Your task to perform on an android device: change notification settings in the gmail app Image 0: 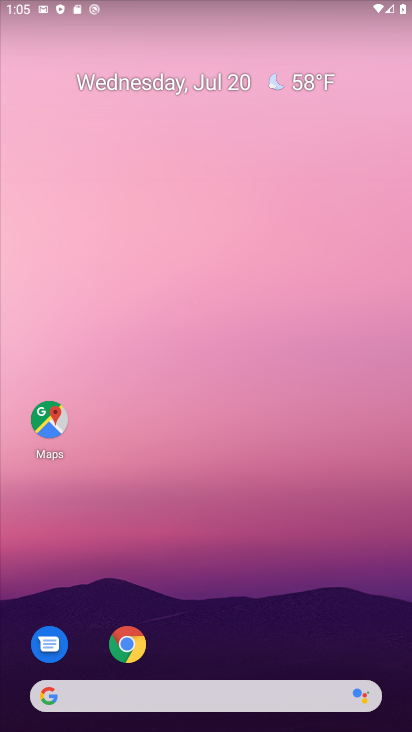
Step 0: drag from (190, 653) to (181, 182)
Your task to perform on an android device: change notification settings in the gmail app Image 1: 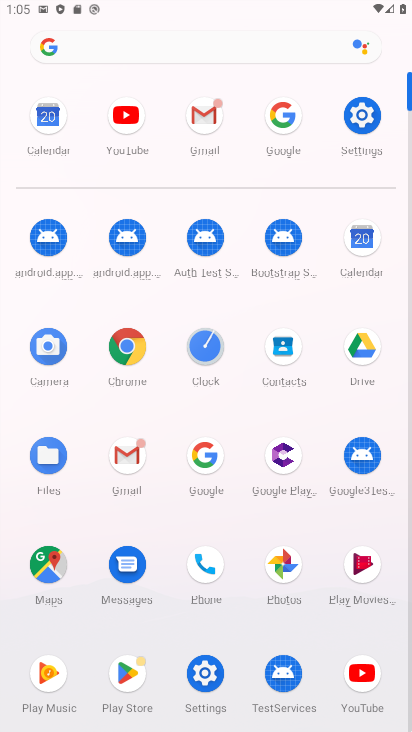
Step 1: click (201, 111)
Your task to perform on an android device: change notification settings in the gmail app Image 2: 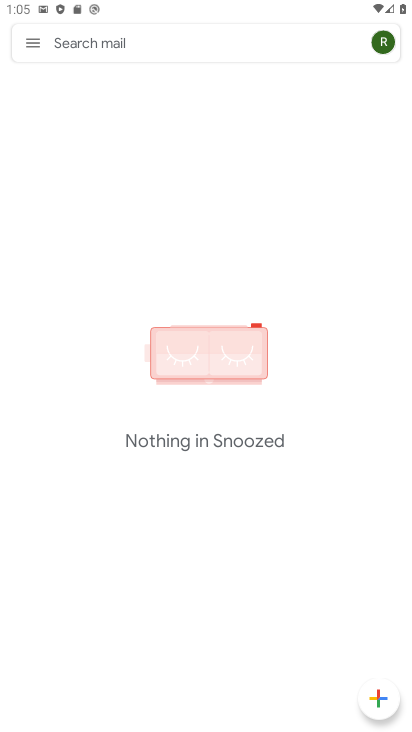
Step 2: click (35, 40)
Your task to perform on an android device: change notification settings in the gmail app Image 3: 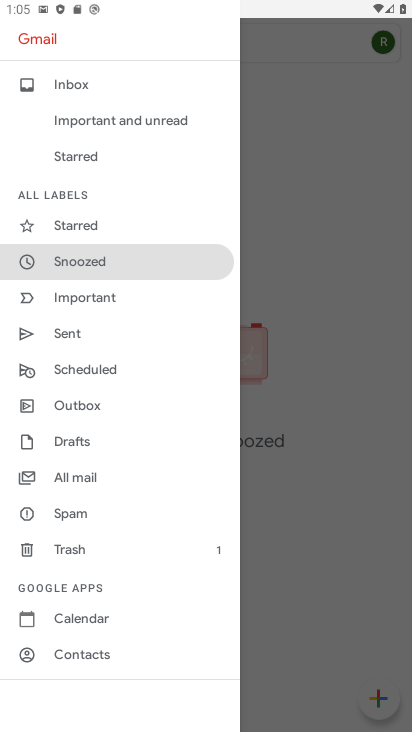
Step 3: drag from (118, 673) to (105, 254)
Your task to perform on an android device: change notification settings in the gmail app Image 4: 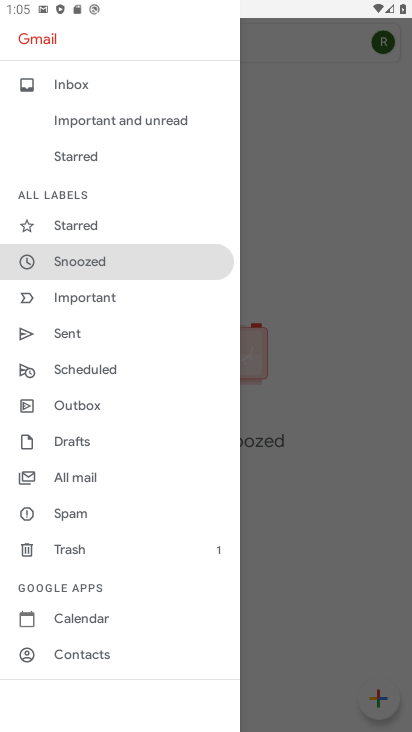
Step 4: drag from (50, 607) to (70, 333)
Your task to perform on an android device: change notification settings in the gmail app Image 5: 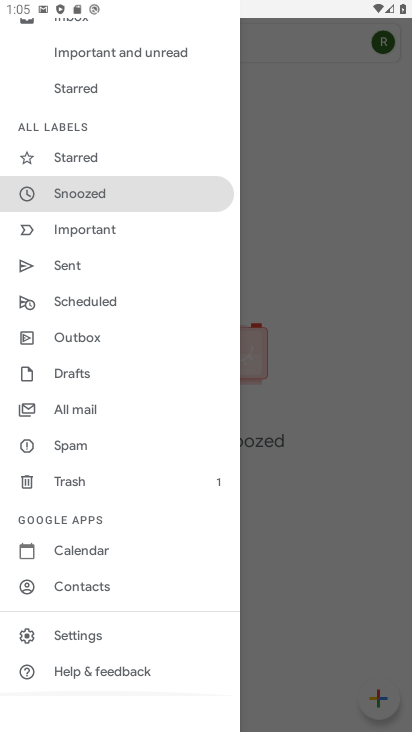
Step 5: click (71, 627)
Your task to perform on an android device: change notification settings in the gmail app Image 6: 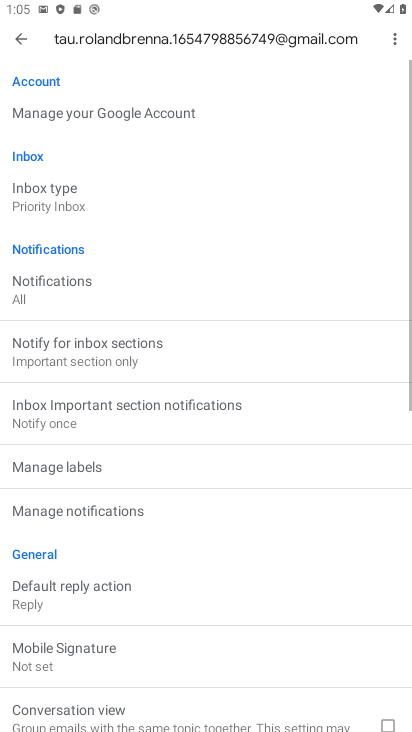
Step 6: click (77, 285)
Your task to perform on an android device: change notification settings in the gmail app Image 7: 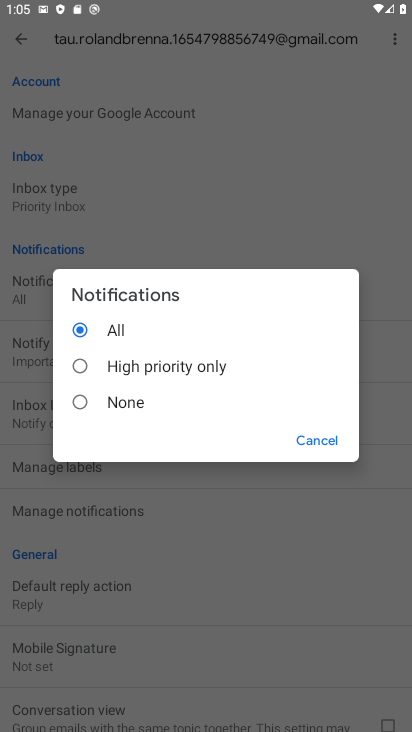
Step 7: click (77, 401)
Your task to perform on an android device: change notification settings in the gmail app Image 8: 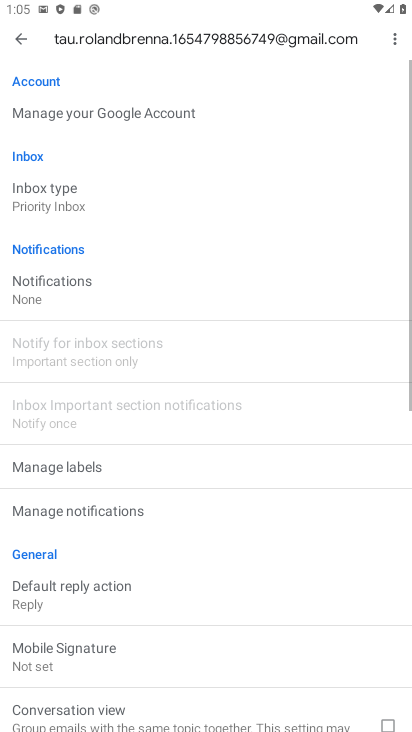
Step 8: task complete